Your task to perform on an android device: turn on data saver in the chrome app Image 0: 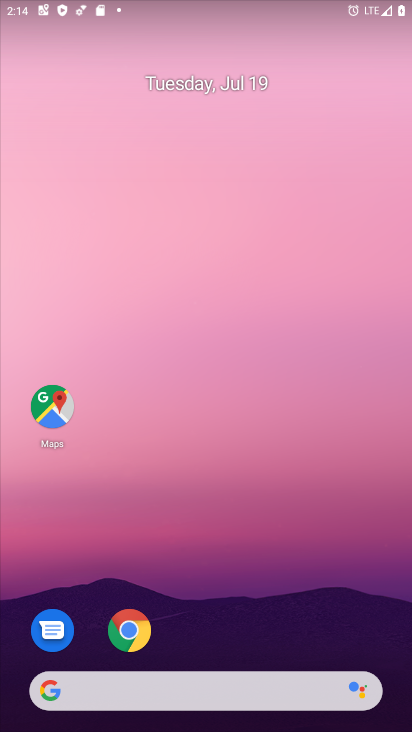
Step 0: click (125, 624)
Your task to perform on an android device: turn on data saver in the chrome app Image 1: 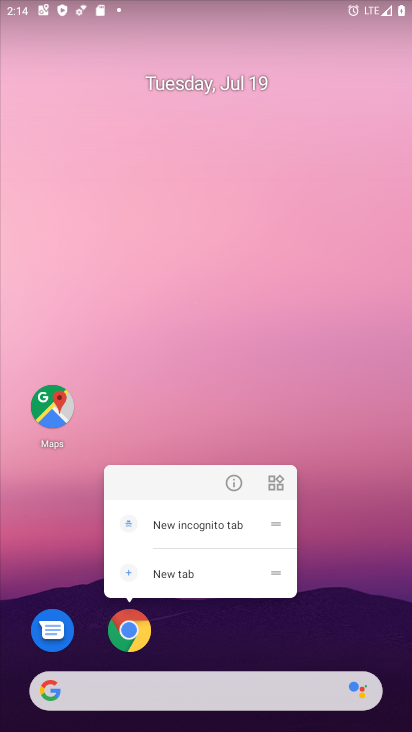
Step 1: click (125, 624)
Your task to perform on an android device: turn on data saver in the chrome app Image 2: 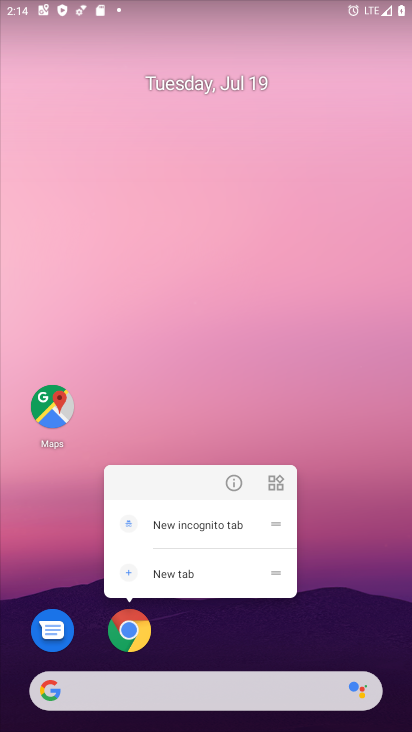
Step 2: click (126, 622)
Your task to perform on an android device: turn on data saver in the chrome app Image 3: 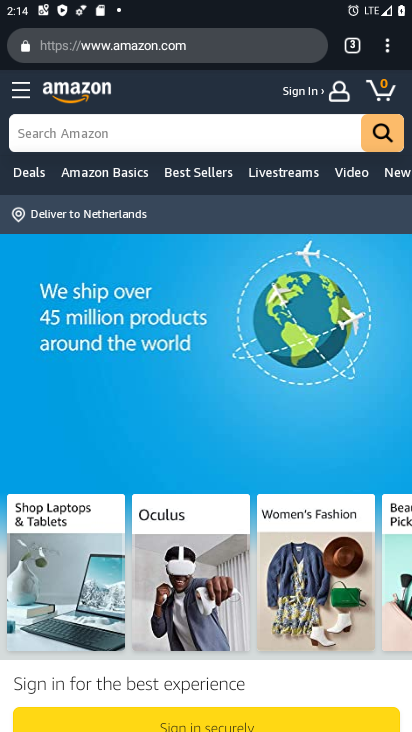
Step 3: click (384, 47)
Your task to perform on an android device: turn on data saver in the chrome app Image 4: 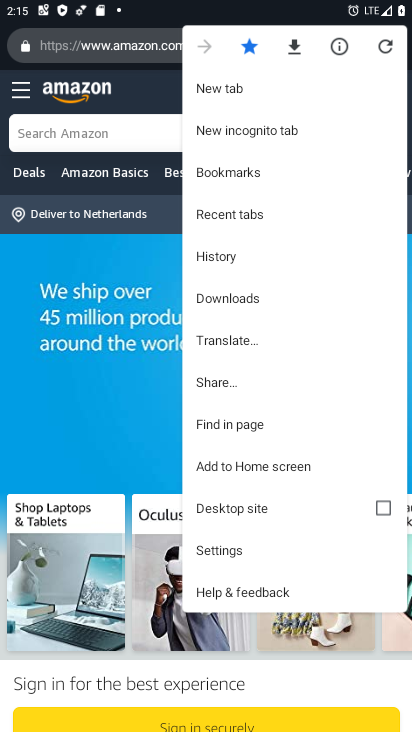
Step 4: click (251, 551)
Your task to perform on an android device: turn on data saver in the chrome app Image 5: 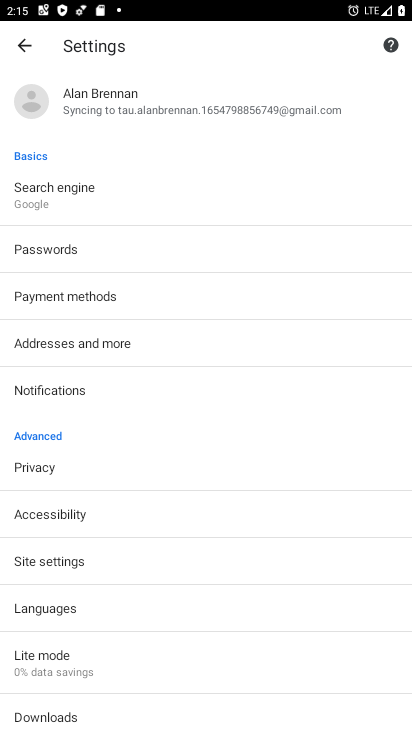
Step 5: click (105, 661)
Your task to perform on an android device: turn on data saver in the chrome app Image 6: 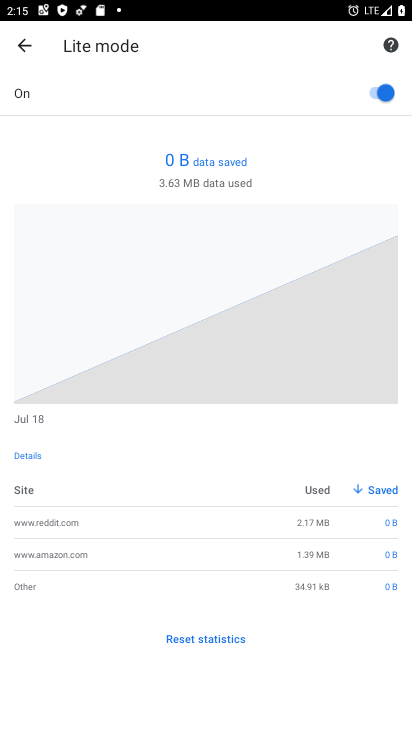
Step 6: task complete